Your task to perform on an android device: Open Google Maps and go to "Timeline" Image 0: 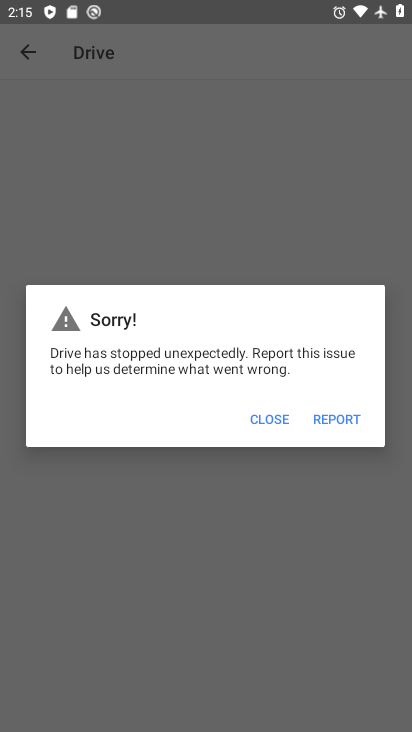
Step 0: press home button
Your task to perform on an android device: Open Google Maps and go to "Timeline" Image 1: 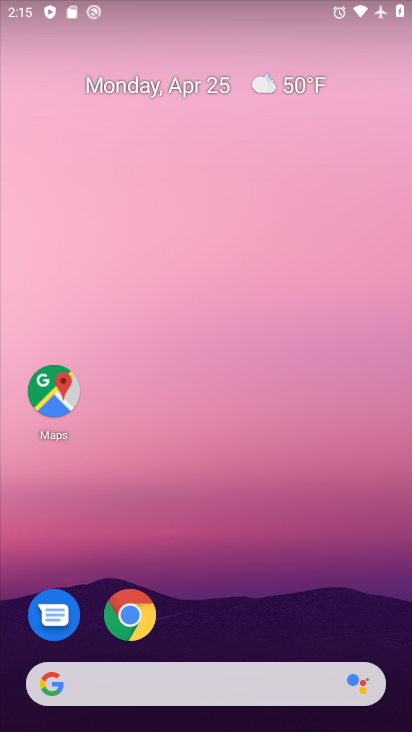
Step 1: click (54, 392)
Your task to perform on an android device: Open Google Maps and go to "Timeline" Image 2: 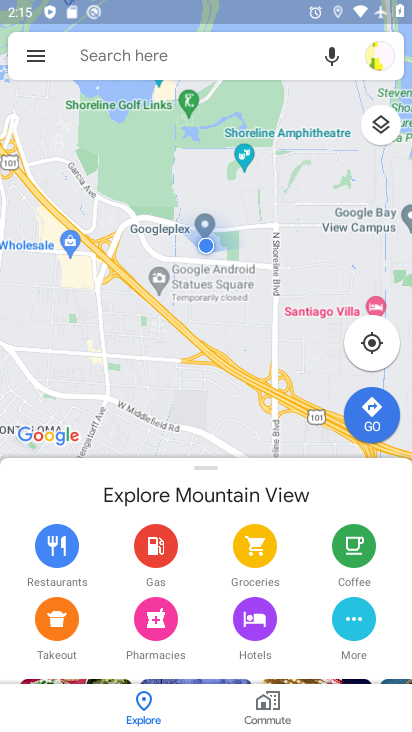
Step 2: click (35, 53)
Your task to perform on an android device: Open Google Maps and go to "Timeline" Image 3: 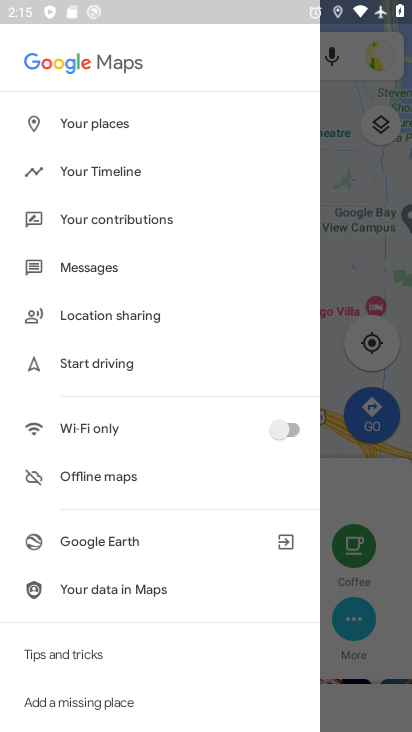
Step 3: click (79, 159)
Your task to perform on an android device: Open Google Maps and go to "Timeline" Image 4: 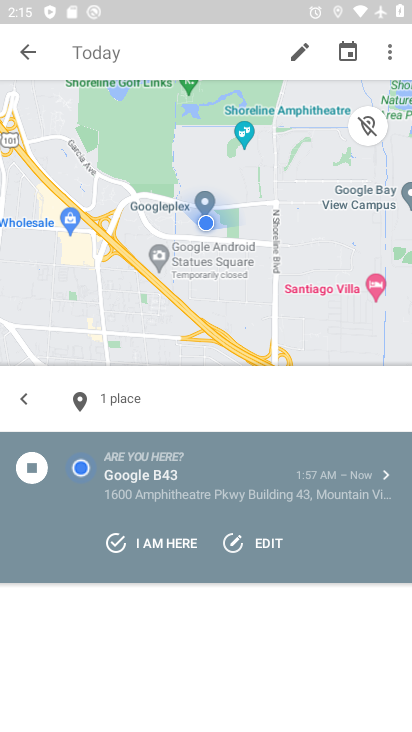
Step 4: task complete